Your task to perform on an android device: turn on wifi Image 0: 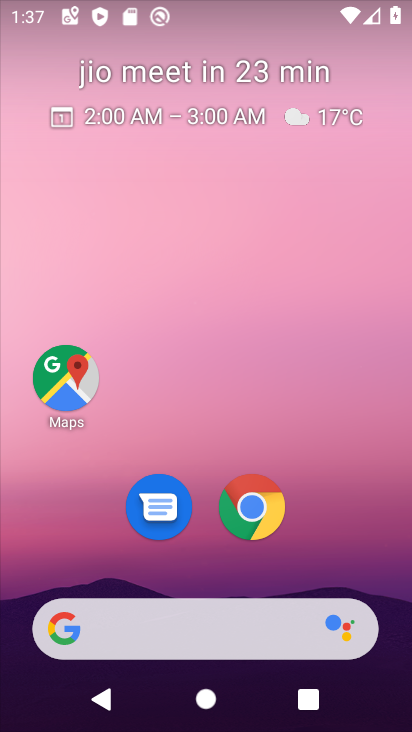
Step 0: drag from (360, 547) to (306, 86)
Your task to perform on an android device: turn on wifi Image 1: 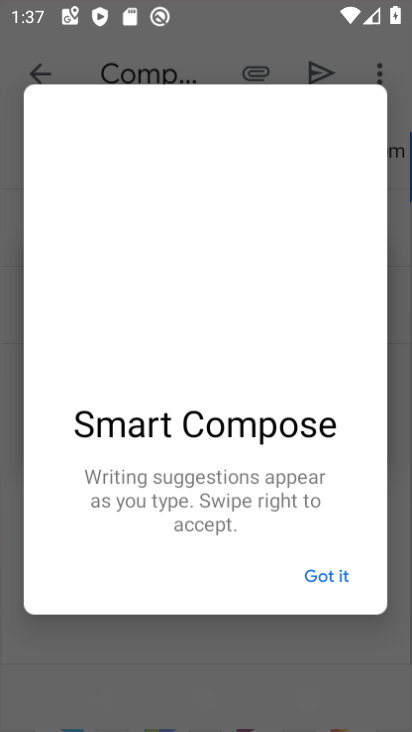
Step 1: drag from (5, 590) to (20, 319)
Your task to perform on an android device: turn on wifi Image 2: 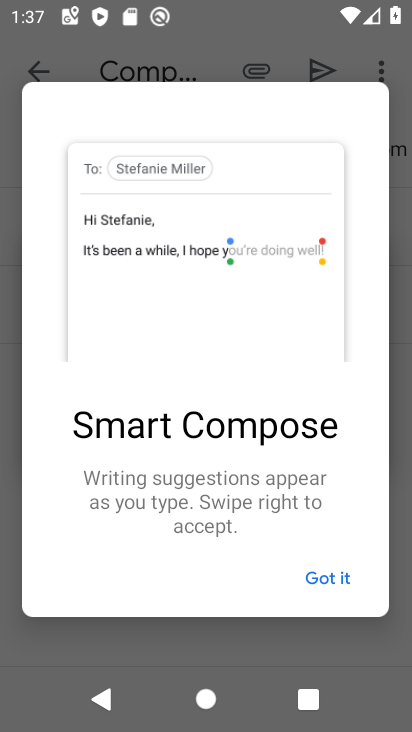
Step 2: press back button
Your task to perform on an android device: turn on wifi Image 3: 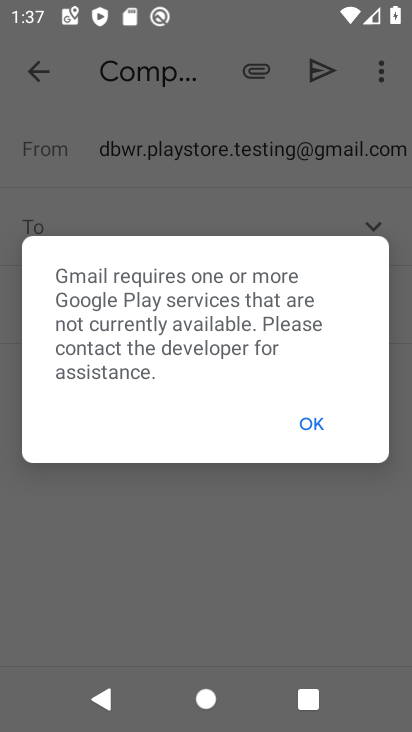
Step 3: press home button
Your task to perform on an android device: turn on wifi Image 4: 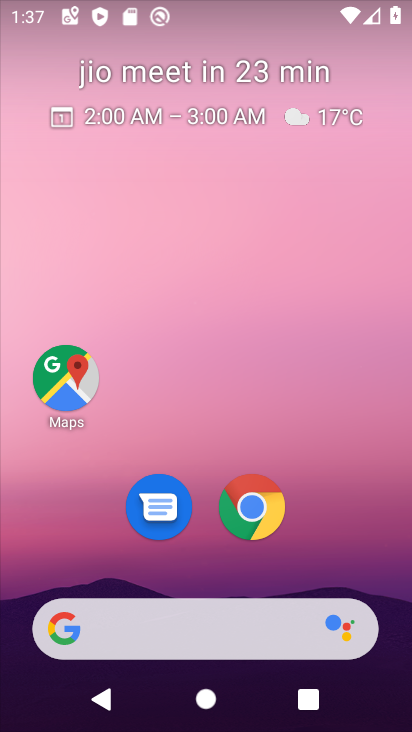
Step 4: drag from (380, 604) to (321, 76)
Your task to perform on an android device: turn on wifi Image 5: 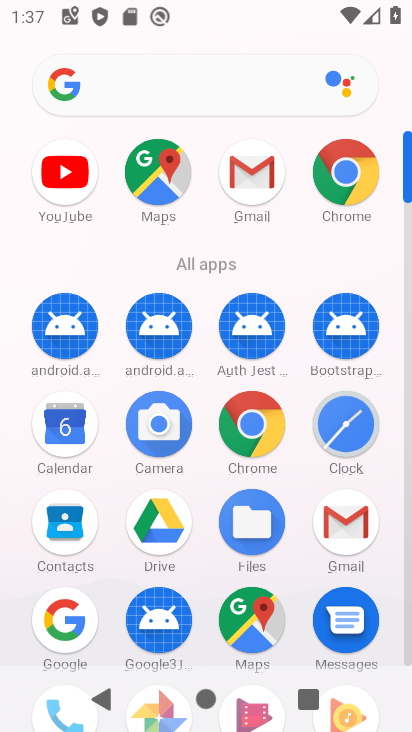
Step 5: drag from (15, 586) to (29, 282)
Your task to perform on an android device: turn on wifi Image 6: 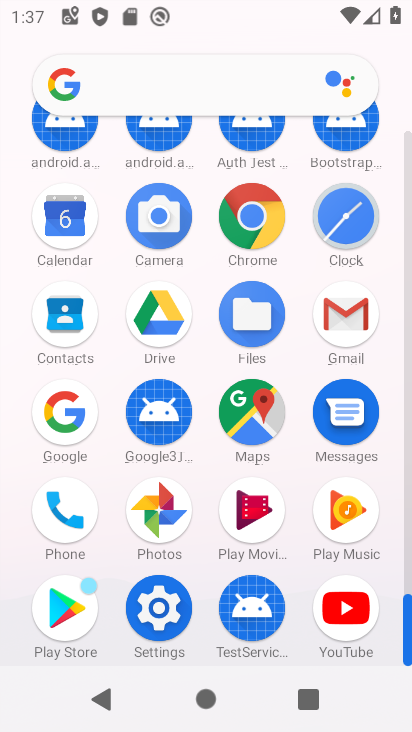
Step 6: click (159, 602)
Your task to perform on an android device: turn on wifi Image 7: 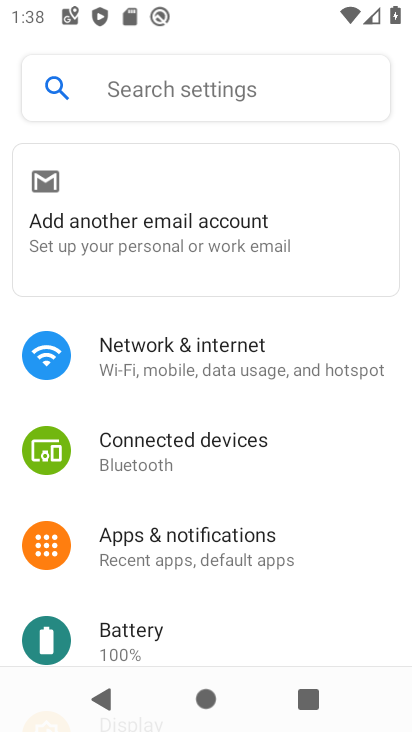
Step 7: click (187, 352)
Your task to perform on an android device: turn on wifi Image 8: 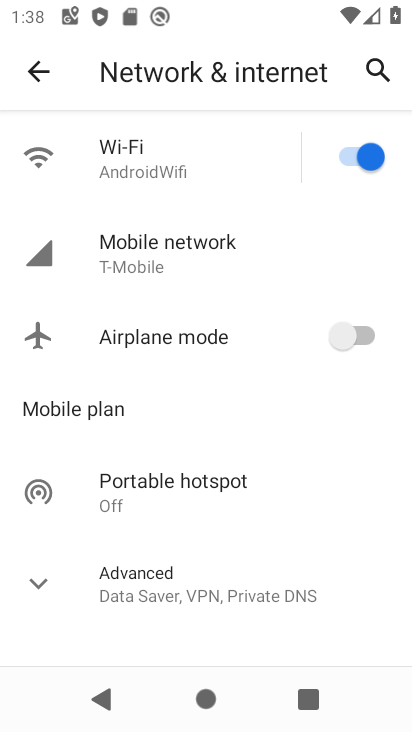
Step 8: task complete